Your task to perform on an android device: Search for Italian restaurants on Maps Image 0: 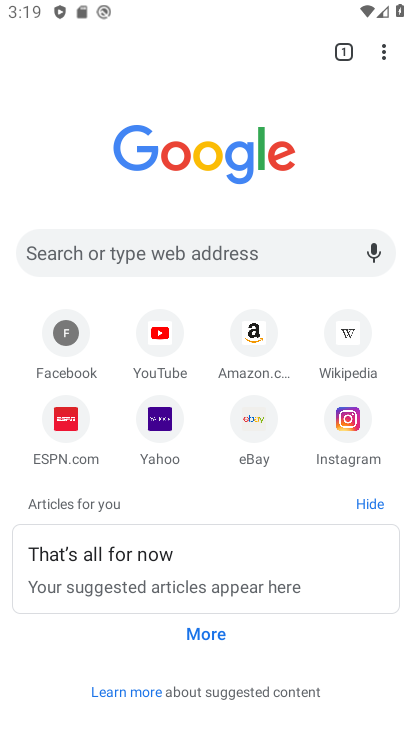
Step 0: press home button
Your task to perform on an android device: Search for Italian restaurants on Maps Image 1: 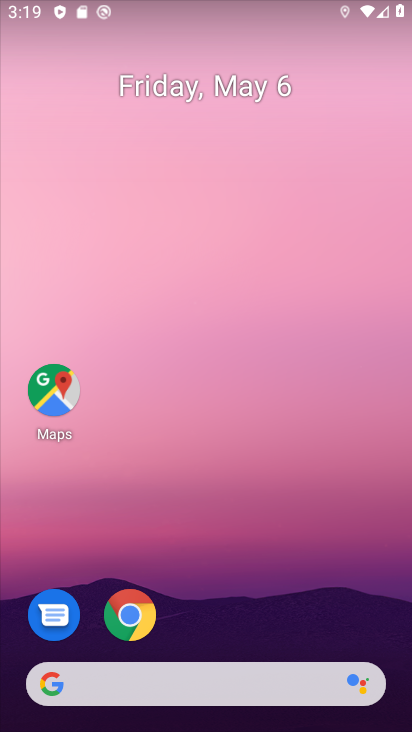
Step 1: click (37, 390)
Your task to perform on an android device: Search for Italian restaurants on Maps Image 2: 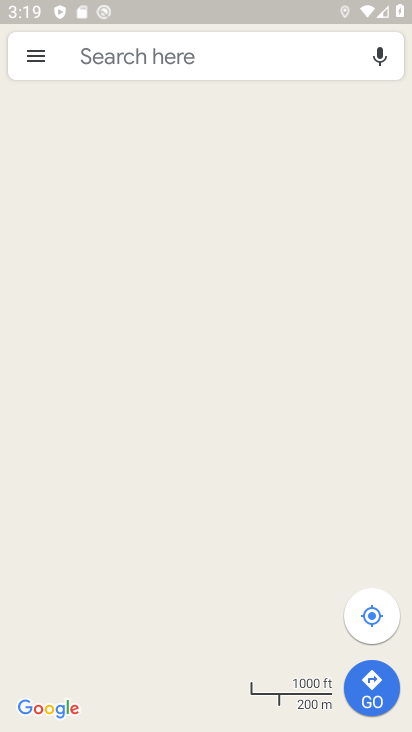
Step 2: click (121, 60)
Your task to perform on an android device: Search for Italian restaurants on Maps Image 3: 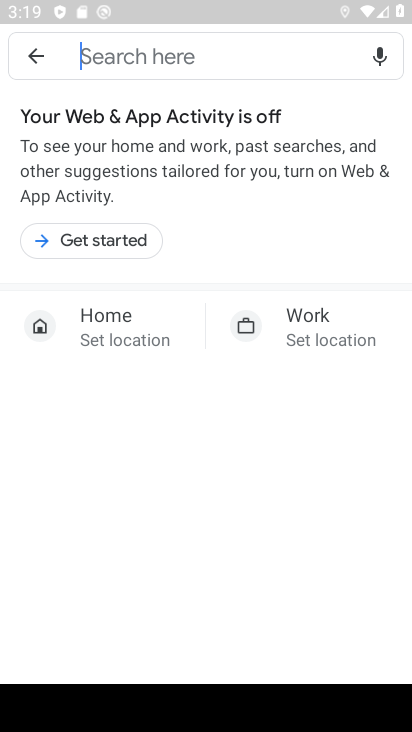
Step 3: type "Italian restaurants "
Your task to perform on an android device: Search for Italian restaurants on Maps Image 4: 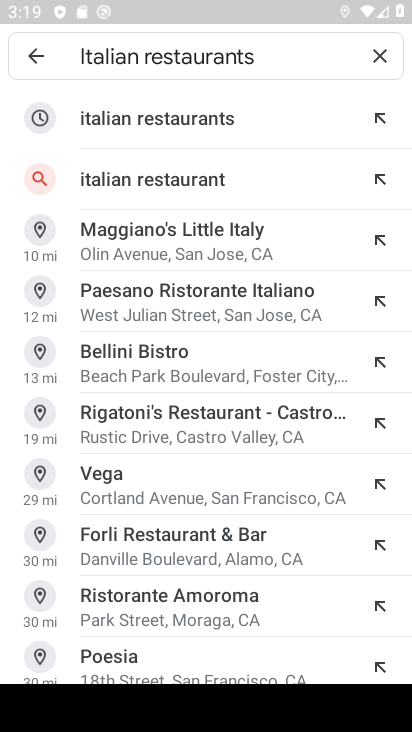
Step 4: click (105, 124)
Your task to perform on an android device: Search for Italian restaurants on Maps Image 5: 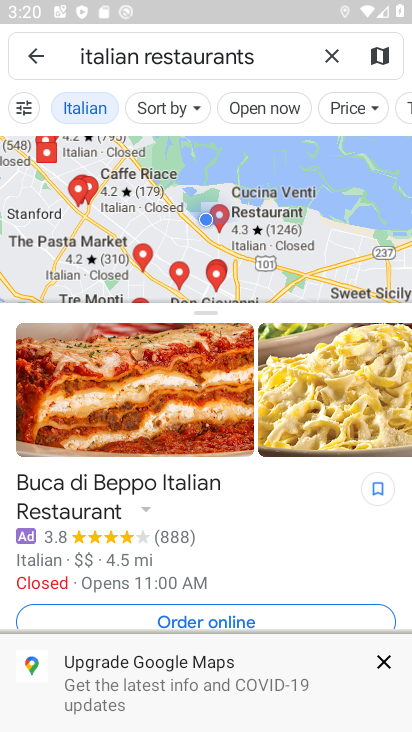
Step 5: task complete